Your task to perform on an android device: open device folders in google photos Image 0: 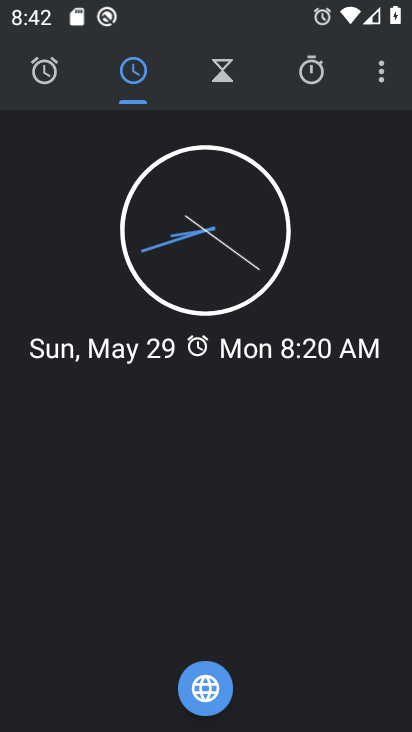
Step 0: press home button
Your task to perform on an android device: open device folders in google photos Image 1: 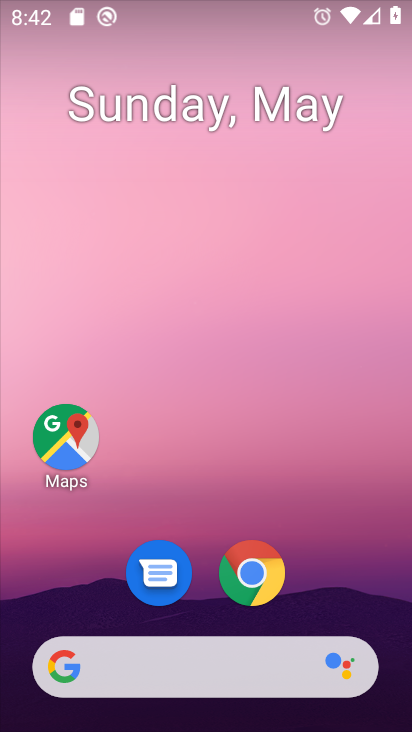
Step 1: drag from (210, 534) to (301, 7)
Your task to perform on an android device: open device folders in google photos Image 2: 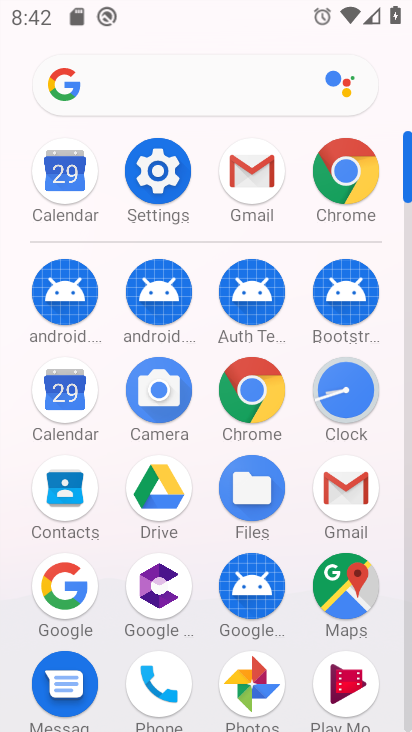
Step 2: click (249, 676)
Your task to perform on an android device: open device folders in google photos Image 3: 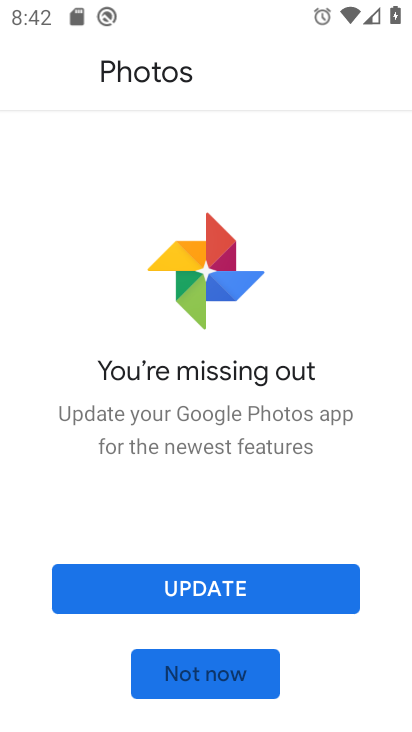
Step 3: click (224, 671)
Your task to perform on an android device: open device folders in google photos Image 4: 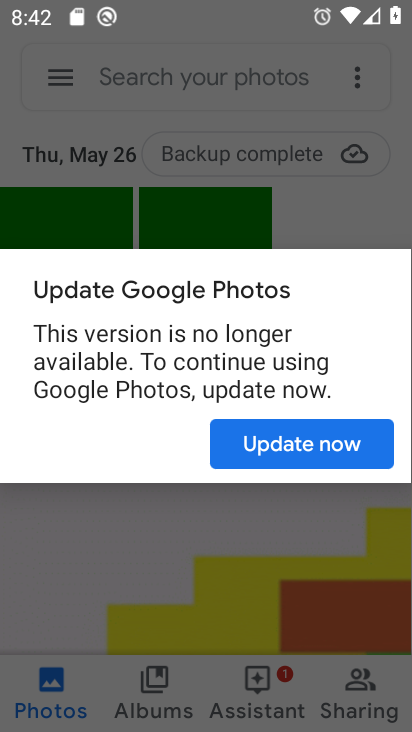
Step 4: click (371, 451)
Your task to perform on an android device: open device folders in google photos Image 5: 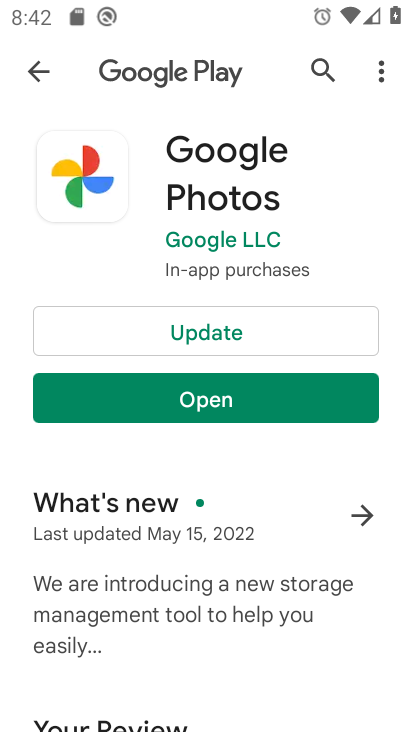
Step 5: click (333, 396)
Your task to perform on an android device: open device folders in google photos Image 6: 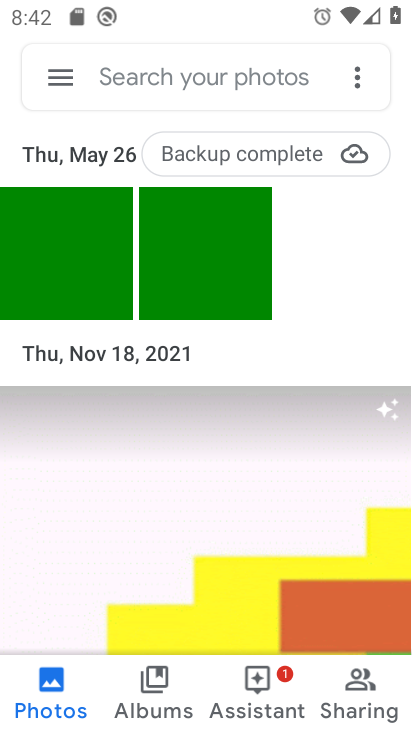
Step 6: click (59, 76)
Your task to perform on an android device: open device folders in google photos Image 7: 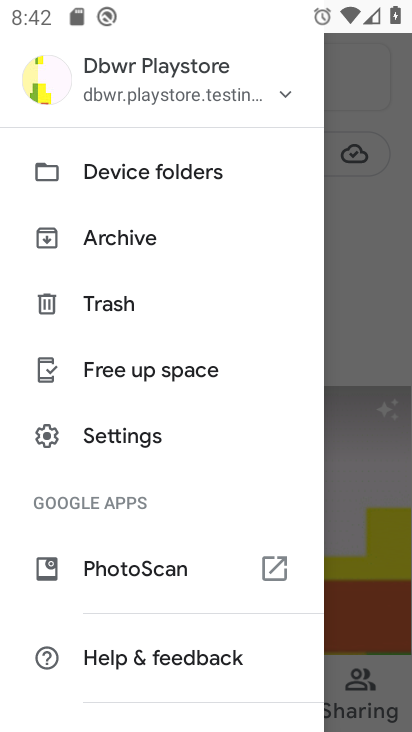
Step 7: click (99, 159)
Your task to perform on an android device: open device folders in google photos Image 8: 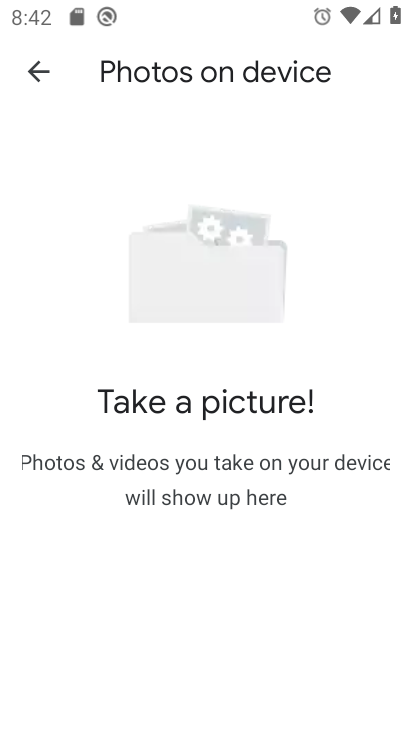
Step 8: task complete